Your task to perform on an android device: change the clock display to digital Image 0: 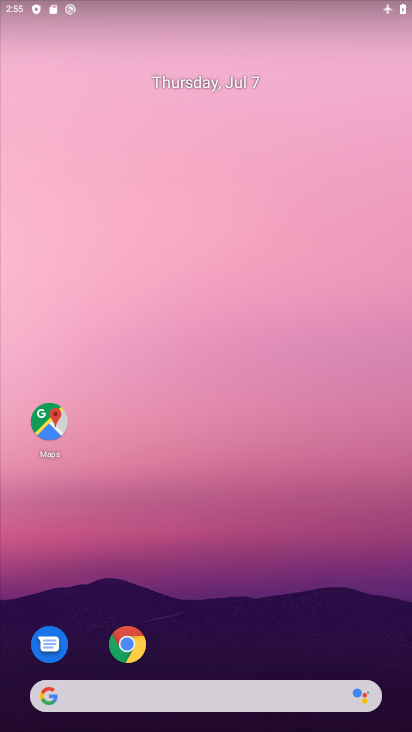
Step 0: drag from (263, 674) to (174, 180)
Your task to perform on an android device: change the clock display to digital Image 1: 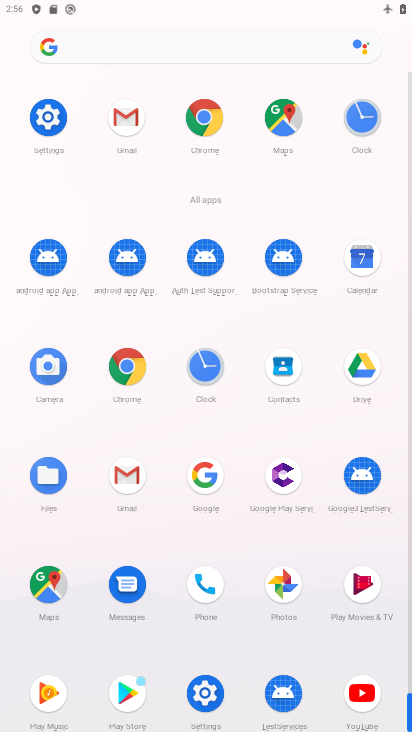
Step 1: click (200, 350)
Your task to perform on an android device: change the clock display to digital Image 2: 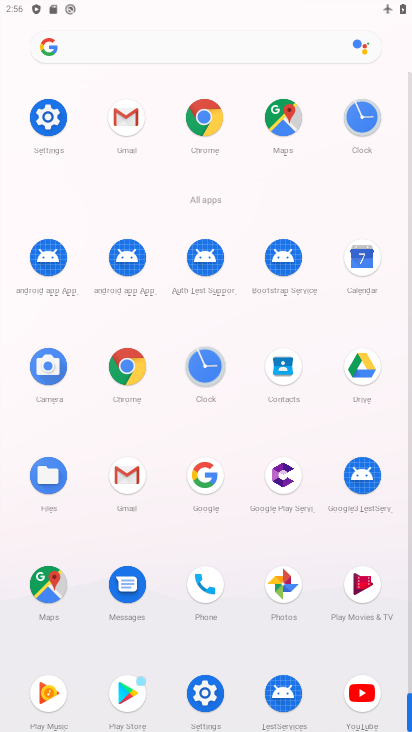
Step 2: click (203, 351)
Your task to perform on an android device: change the clock display to digital Image 3: 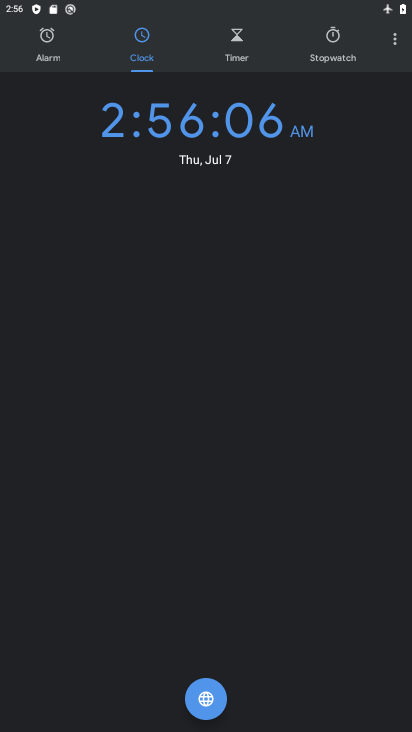
Step 3: click (388, 32)
Your task to perform on an android device: change the clock display to digital Image 4: 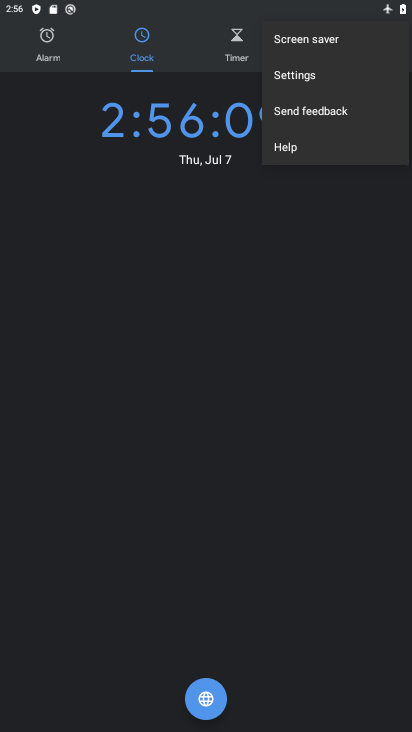
Step 4: click (315, 76)
Your task to perform on an android device: change the clock display to digital Image 5: 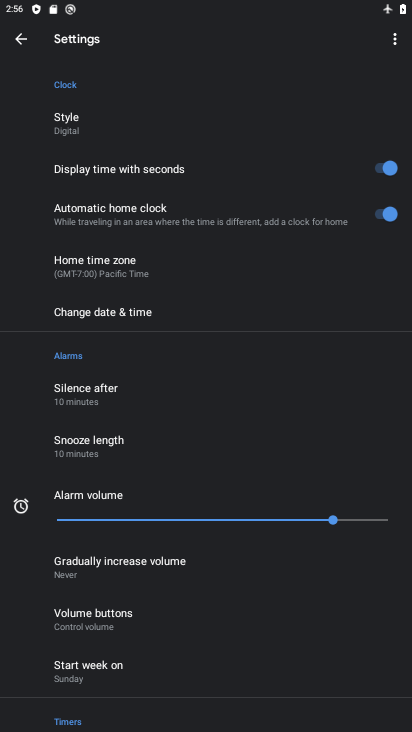
Step 5: click (73, 125)
Your task to perform on an android device: change the clock display to digital Image 6: 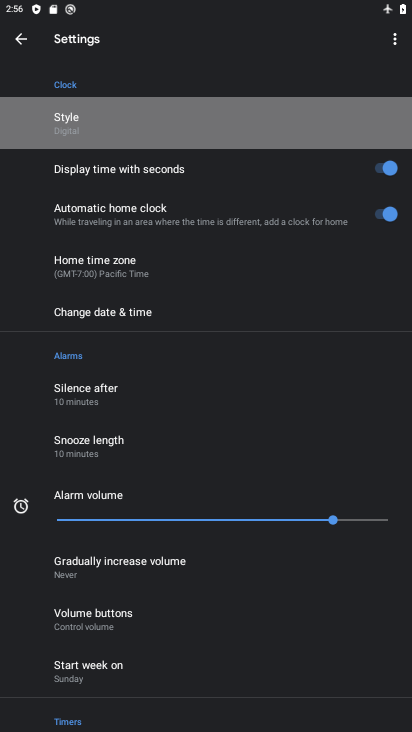
Step 6: click (74, 124)
Your task to perform on an android device: change the clock display to digital Image 7: 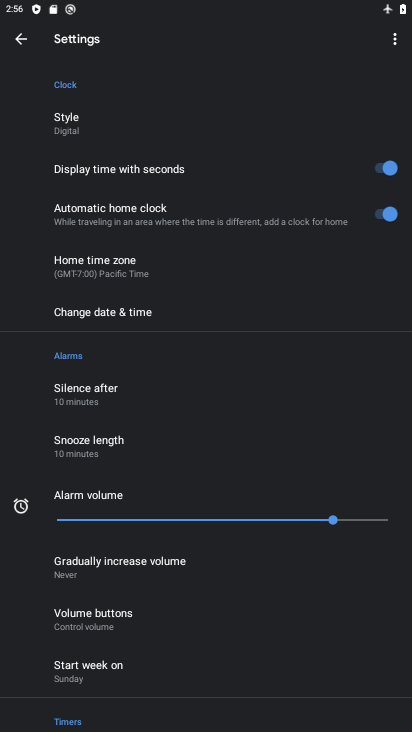
Step 7: task complete